Your task to perform on an android device: Open settings on Google Maps Image 0: 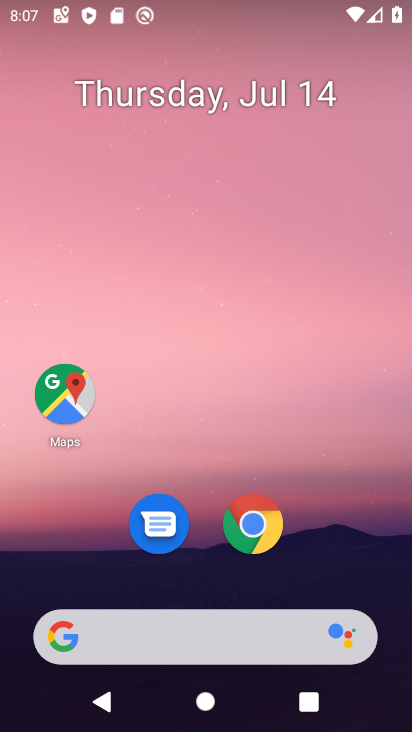
Step 0: click (69, 411)
Your task to perform on an android device: Open settings on Google Maps Image 1: 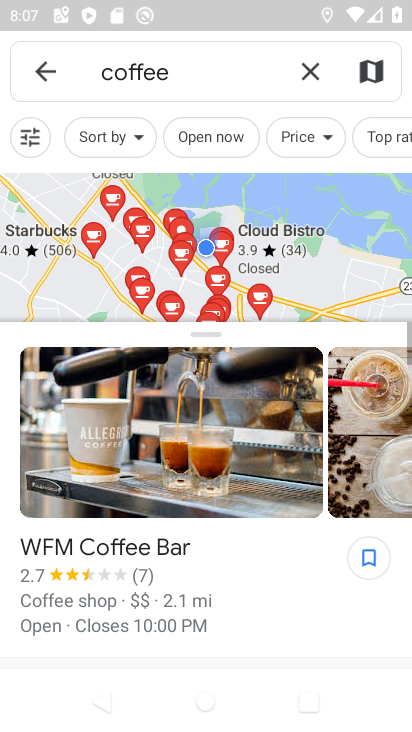
Step 1: click (303, 67)
Your task to perform on an android device: Open settings on Google Maps Image 2: 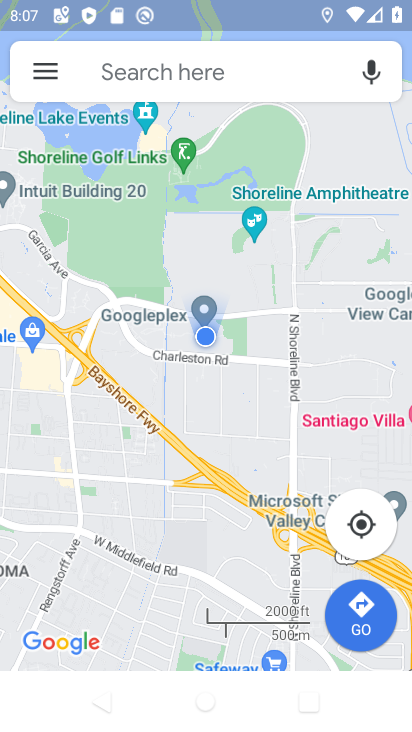
Step 2: click (49, 77)
Your task to perform on an android device: Open settings on Google Maps Image 3: 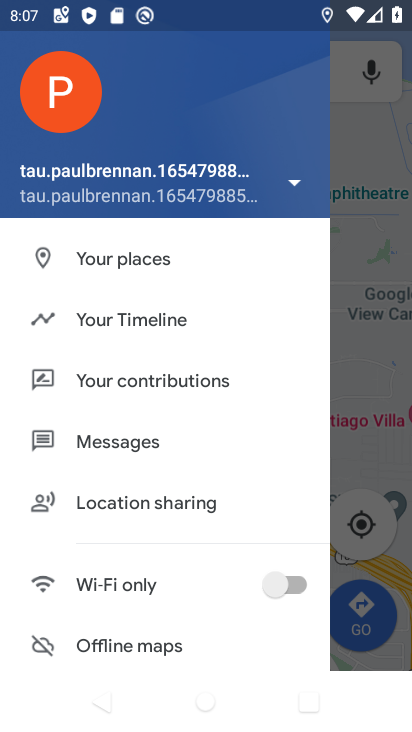
Step 3: drag from (162, 637) to (210, 0)
Your task to perform on an android device: Open settings on Google Maps Image 4: 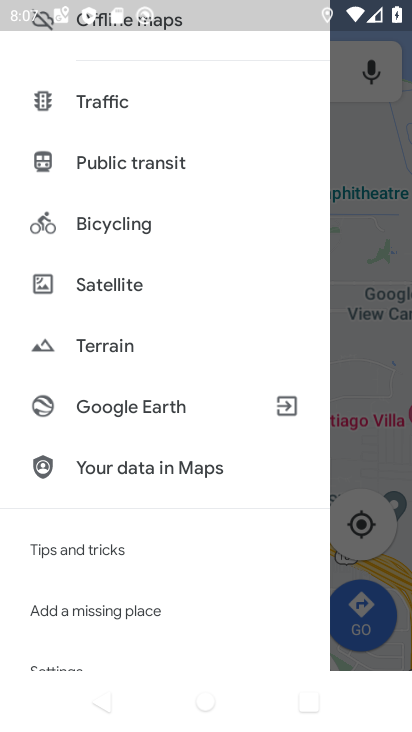
Step 4: drag from (115, 496) to (149, 286)
Your task to perform on an android device: Open settings on Google Maps Image 5: 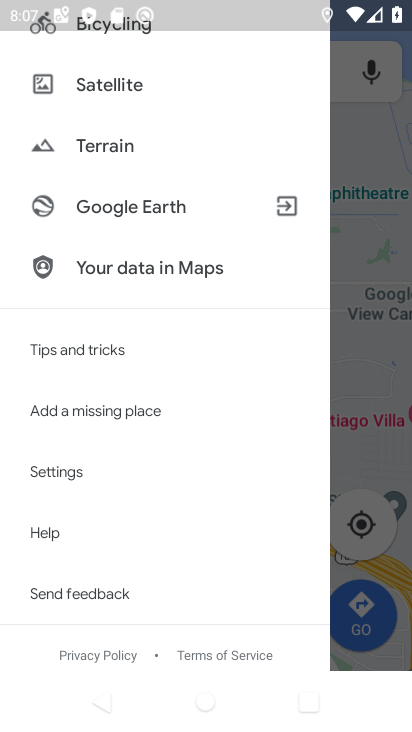
Step 5: click (77, 470)
Your task to perform on an android device: Open settings on Google Maps Image 6: 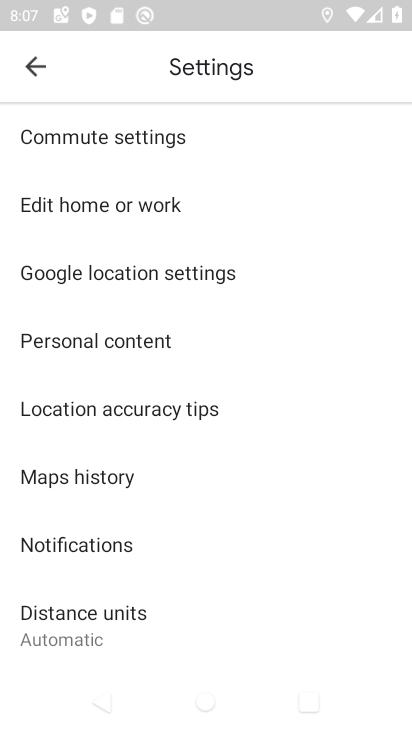
Step 6: task complete